Your task to perform on an android device: Add "bose soundlink" to the cart on costco Image 0: 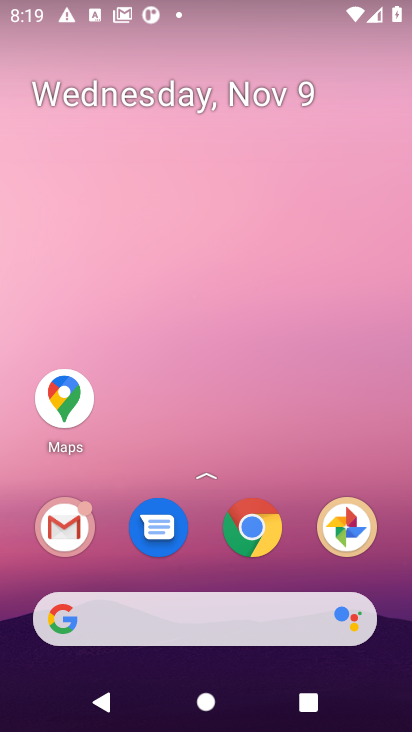
Step 0: click (248, 535)
Your task to perform on an android device: Add "bose soundlink" to the cart on costco Image 1: 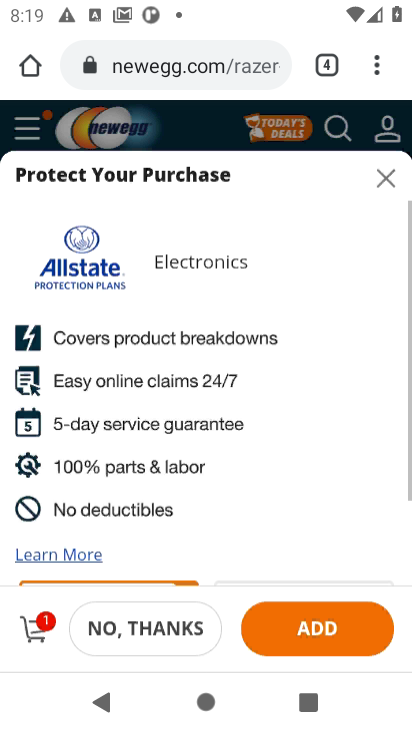
Step 1: click (174, 70)
Your task to perform on an android device: Add "bose soundlink" to the cart on costco Image 2: 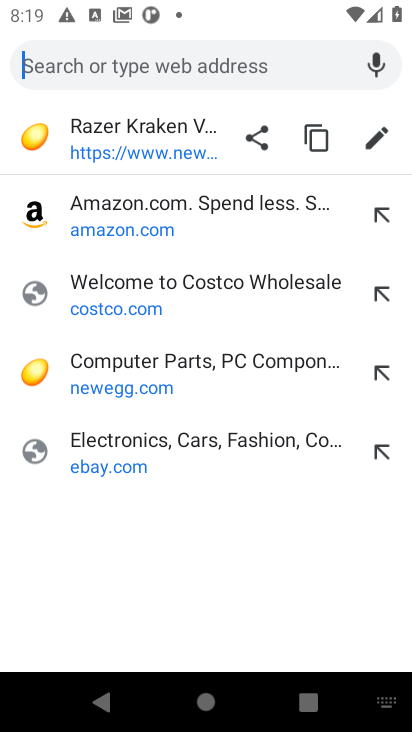
Step 2: click (116, 303)
Your task to perform on an android device: Add "bose soundlink" to the cart on costco Image 3: 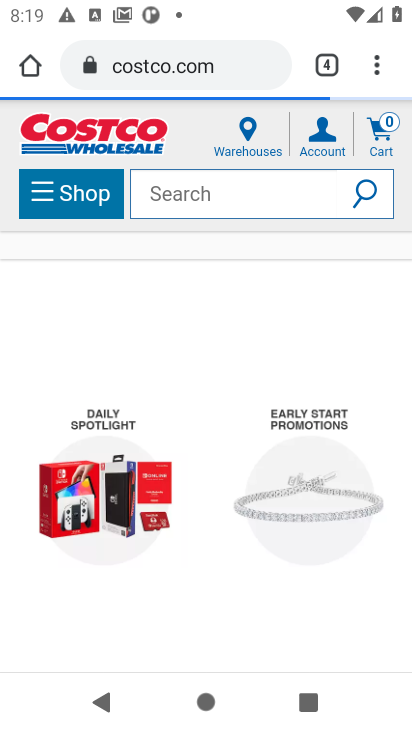
Step 3: click (233, 199)
Your task to perform on an android device: Add "bose soundlink" to the cart on costco Image 4: 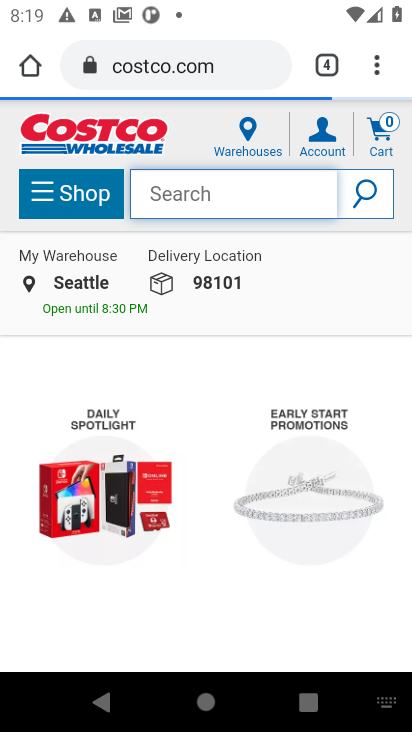
Step 4: type "bose soundlink"
Your task to perform on an android device: Add "bose soundlink" to the cart on costco Image 5: 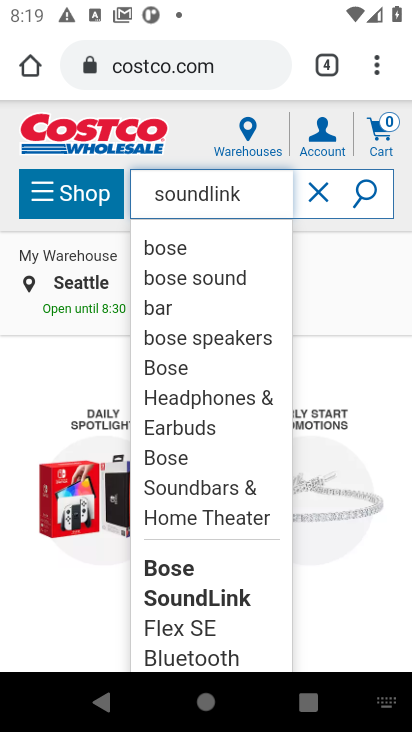
Step 5: click (369, 196)
Your task to perform on an android device: Add "bose soundlink" to the cart on costco Image 6: 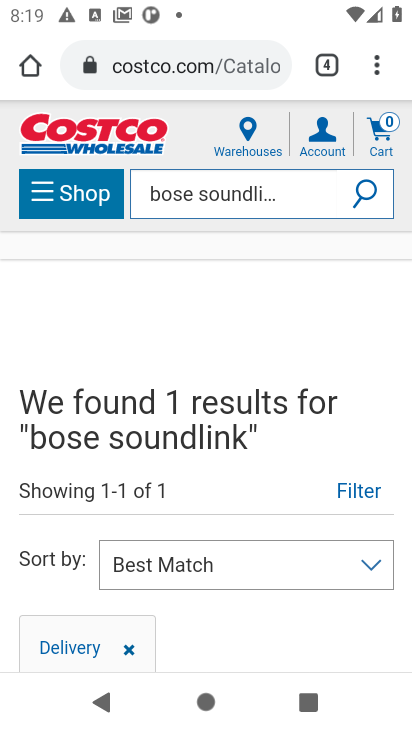
Step 6: drag from (258, 391) to (254, 164)
Your task to perform on an android device: Add "bose soundlink" to the cart on costco Image 7: 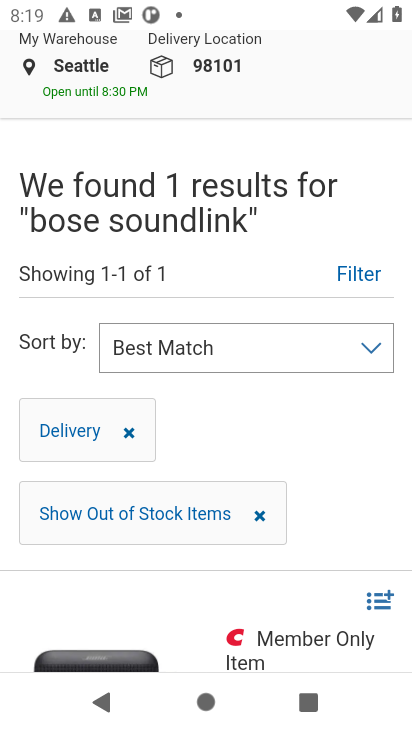
Step 7: drag from (259, 576) to (242, 299)
Your task to perform on an android device: Add "bose soundlink" to the cart on costco Image 8: 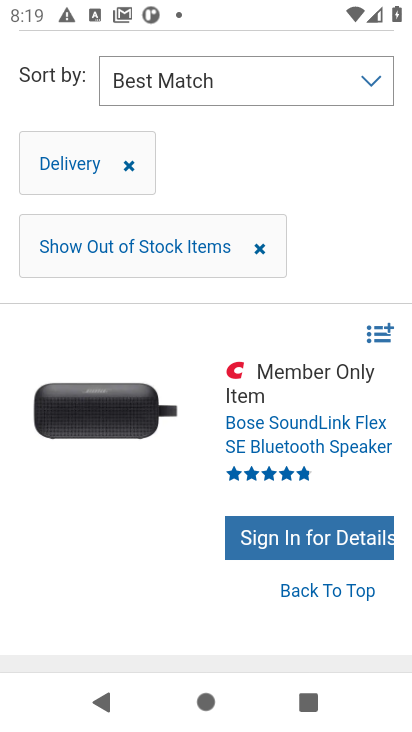
Step 8: click (319, 429)
Your task to perform on an android device: Add "bose soundlink" to the cart on costco Image 9: 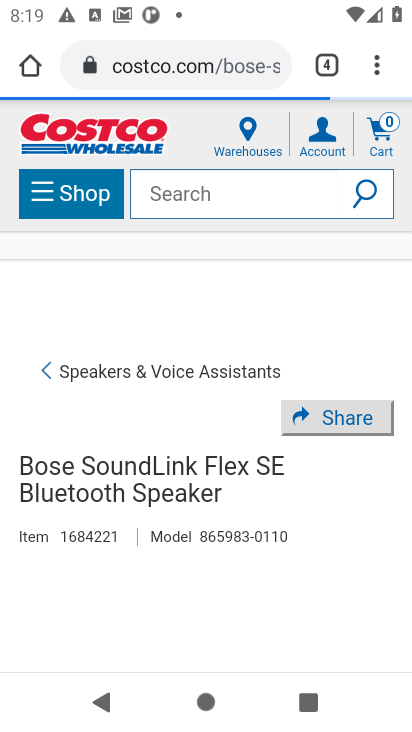
Step 9: task complete